Your task to perform on an android device: Go to ESPN.com Image 0: 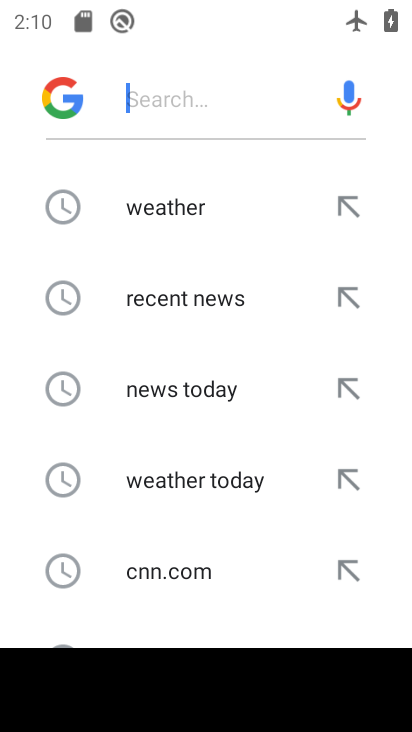
Step 0: press home button
Your task to perform on an android device: Go to ESPN.com Image 1: 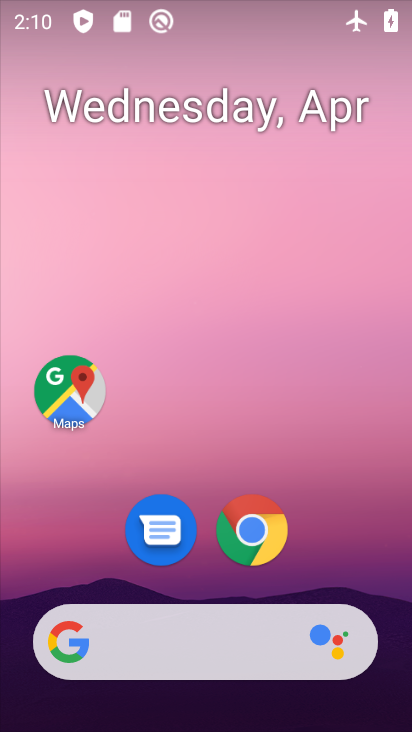
Step 1: drag from (309, 549) to (330, 159)
Your task to perform on an android device: Go to ESPN.com Image 2: 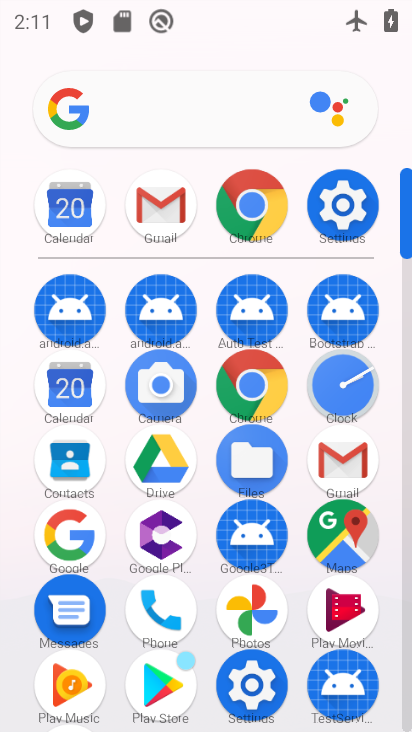
Step 2: click (267, 388)
Your task to perform on an android device: Go to ESPN.com Image 3: 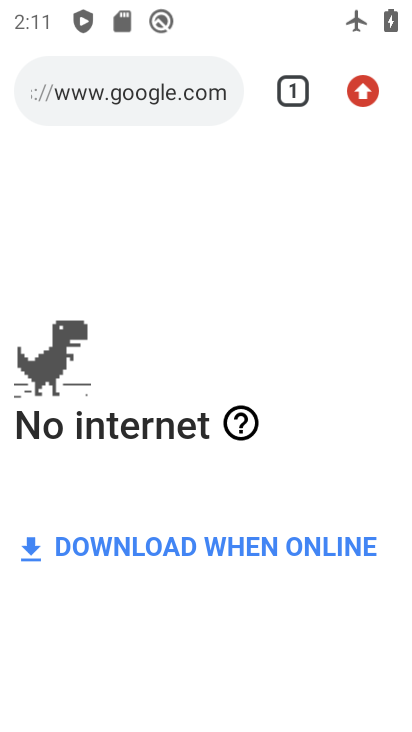
Step 3: click (195, 101)
Your task to perform on an android device: Go to ESPN.com Image 4: 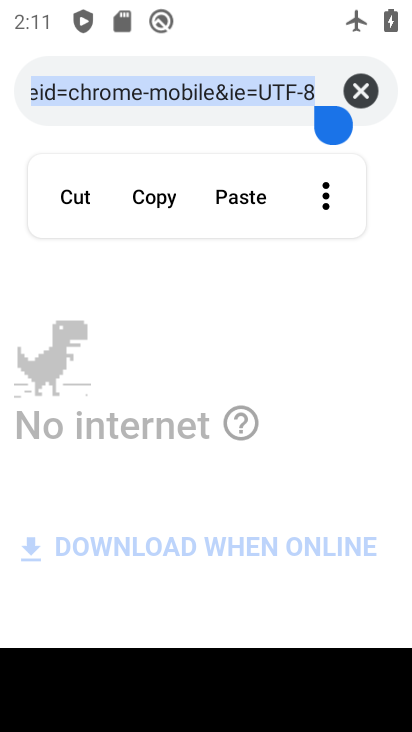
Step 4: type "espn.com"
Your task to perform on an android device: Go to ESPN.com Image 5: 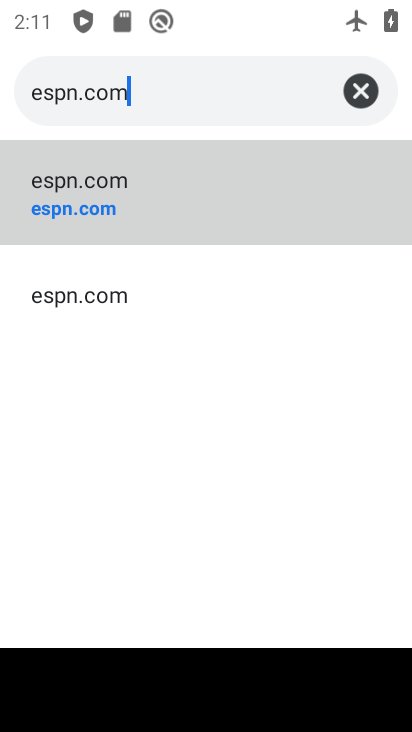
Step 5: click (86, 194)
Your task to perform on an android device: Go to ESPN.com Image 6: 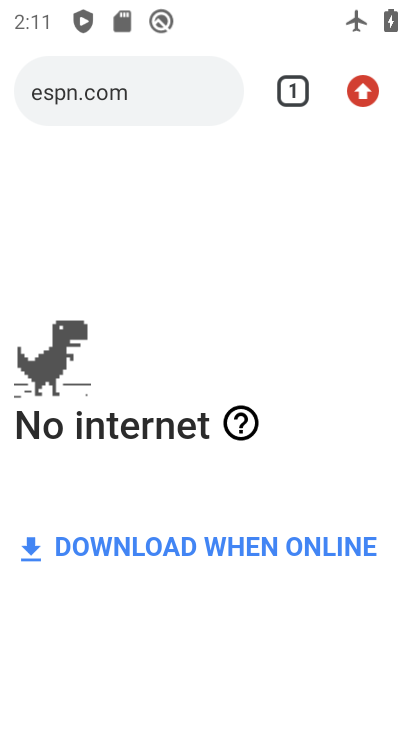
Step 6: task complete